Your task to perform on an android device: remove spam from my inbox in the gmail app Image 0: 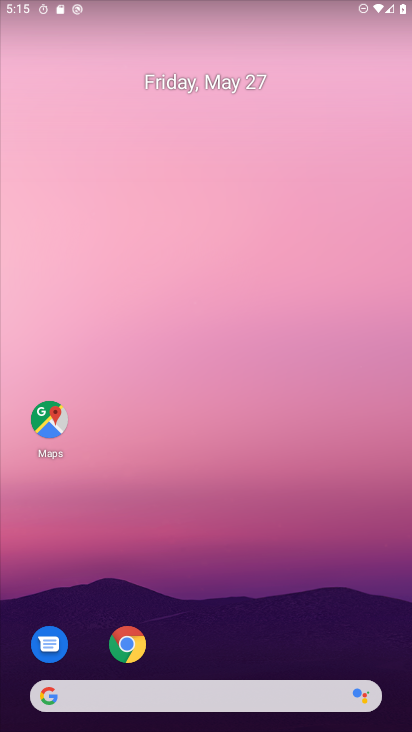
Step 0: drag from (194, 664) to (233, 202)
Your task to perform on an android device: remove spam from my inbox in the gmail app Image 1: 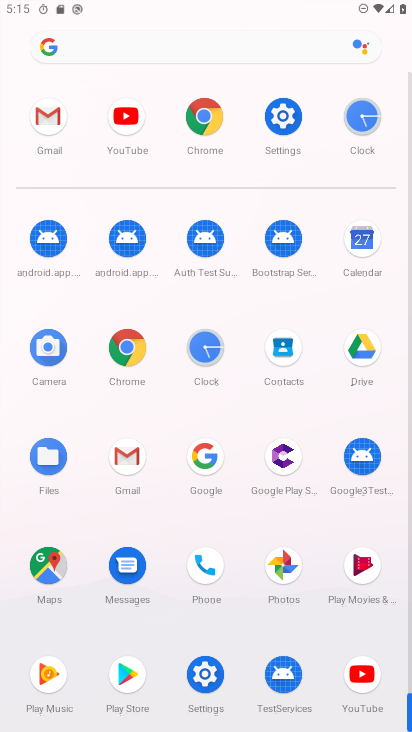
Step 1: click (54, 121)
Your task to perform on an android device: remove spam from my inbox in the gmail app Image 2: 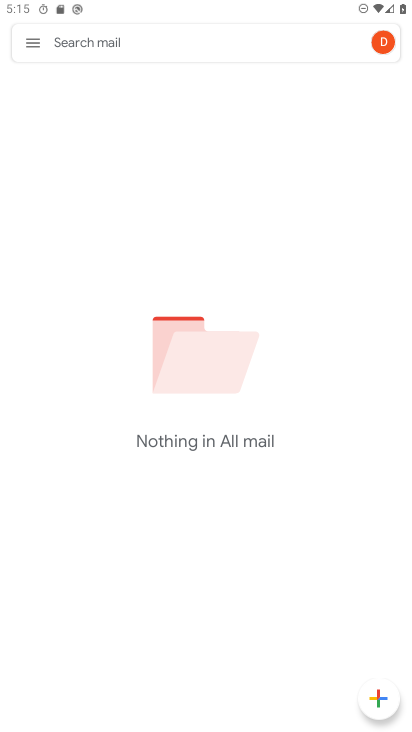
Step 2: click (36, 42)
Your task to perform on an android device: remove spam from my inbox in the gmail app Image 3: 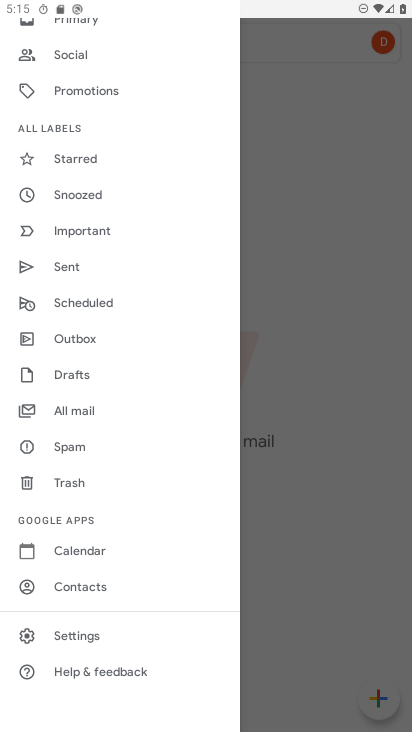
Step 3: click (59, 457)
Your task to perform on an android device: remove spam from my inbox in the gmail app Image 4: 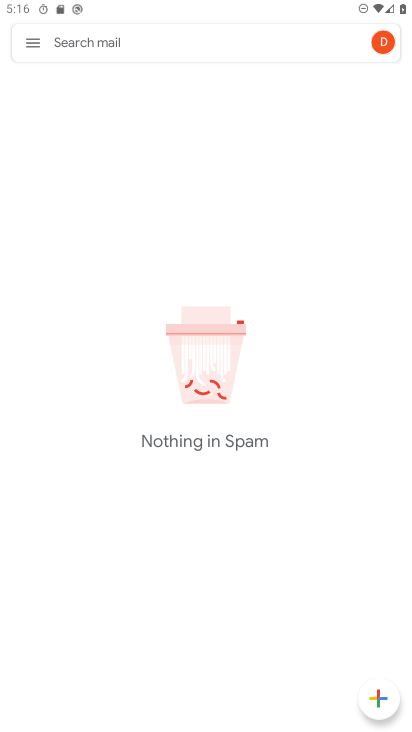
Step 4: task complete